Your task to perform on an android device: turn on translation in the chrome app Image 0: 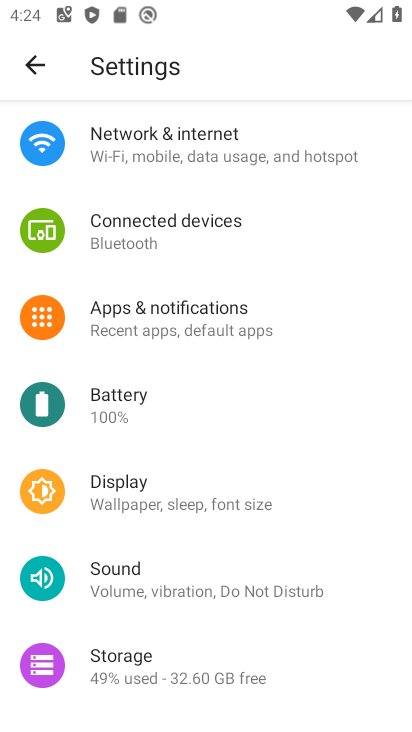
Step 0: press home button
Your task to perform on an android device: turn on translation in the chrome app Image 1: 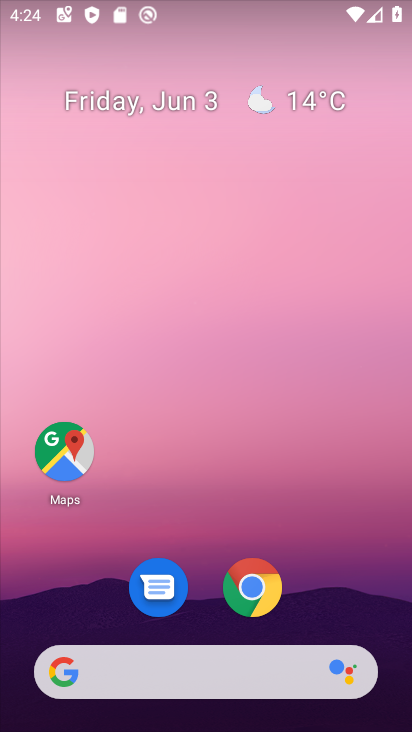
Step 1: drag from (185, 584) to (197, 373)
Your task to perform on an android device: turn on translation in the chrome app Image 2: 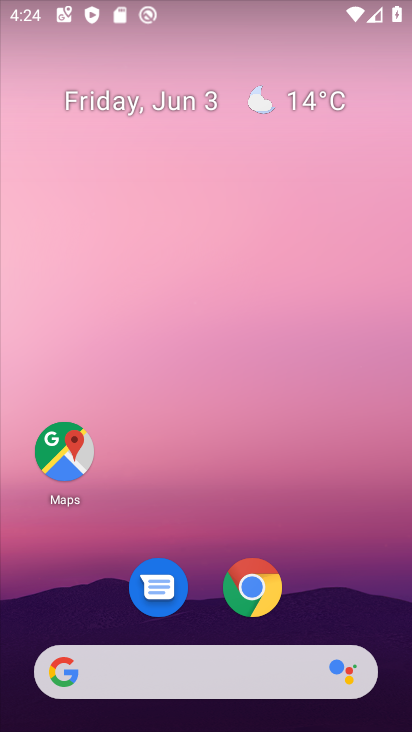
Step 2: click (272, 580)
Your task to perform on an android device: turn on translation in the chrome app Image 3: 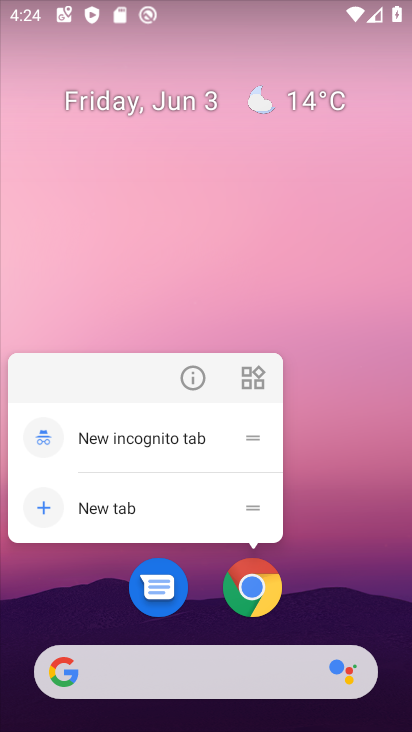
Step 3: click (258, 596)
Your task to perform on an android device: turn on translation in the chrome app Image 4: 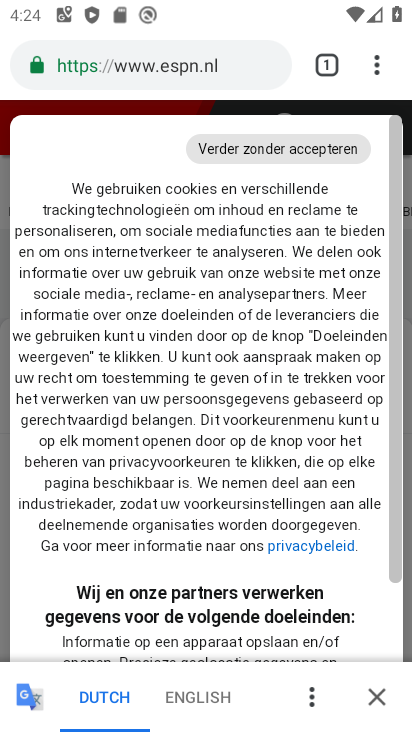
Step 4: click (382, 57)
Your task to perform on an android device: turn on translation in the chrome app Image 5: 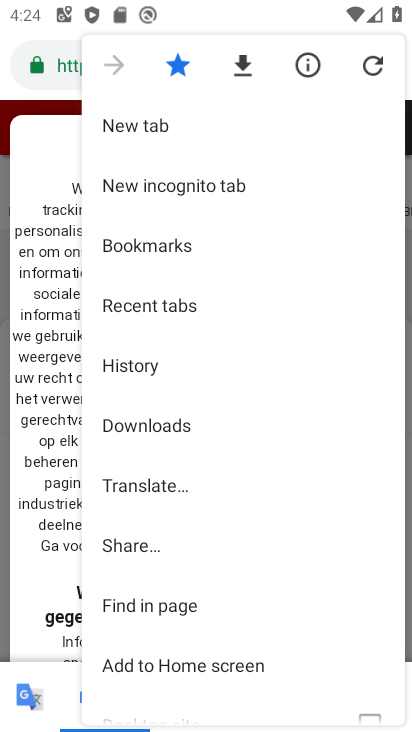
Step 5: drag from (206, 652) to (190, 281)
Your task to perform on an android device: turn on translation in the chrome app Image 6: 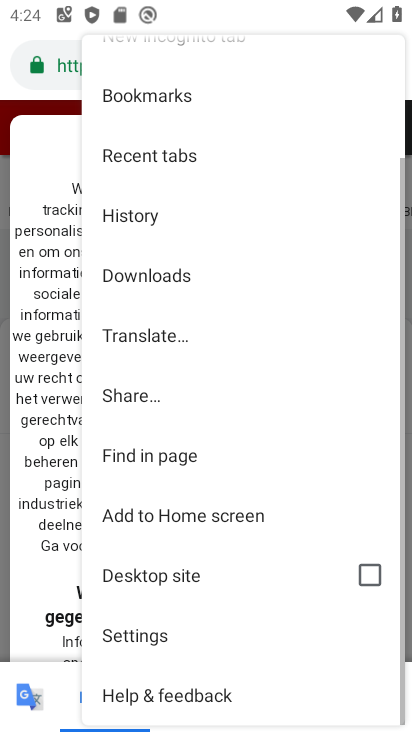
Step 6: click (155, 646)
Your task to perform on an android device: turn on translation in the chrome app Image 7: 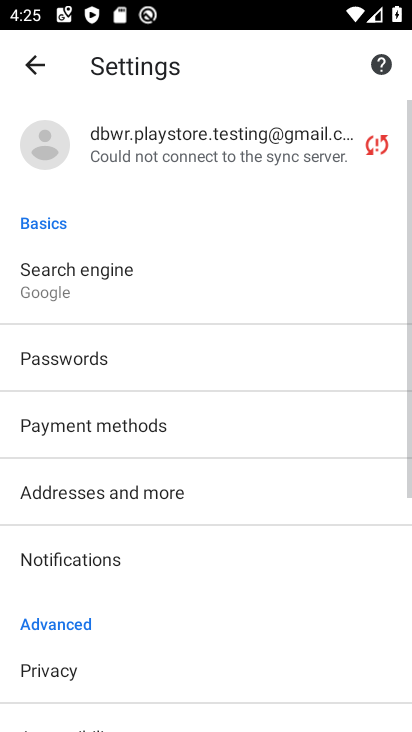
Step 7: drag from (138, 682) to (179, 254)
Your task to perform on an android device: turn on translation in the chrome app Image 8: 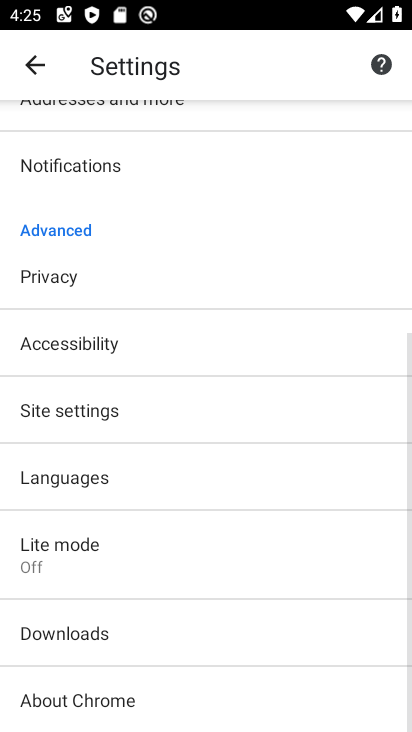
Step 8: click (71, 479)
Your task to perform on an android device: turn on translation in the chrome app Image 9: 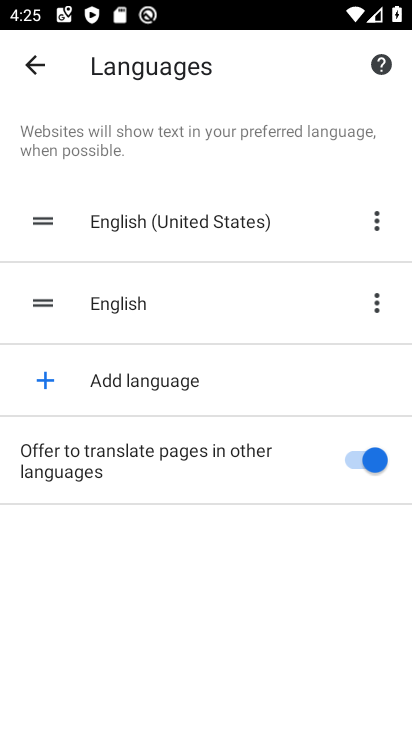
Step 9: task complete